Your task to perform on an android device: Empty the shopping cart on costco. Search for "logitech g pro" on costco, select the first entry, and add it to the cart. Image 0: 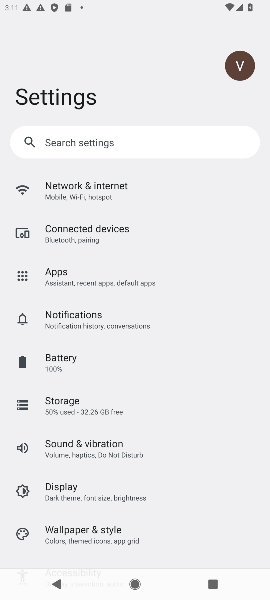
Step 0: press home button
Your task to perform on an android device: Empty the shopping cart on costco. Search for "logitech g pro" on costco, select the first entry, and add it to the cart. Image 1: 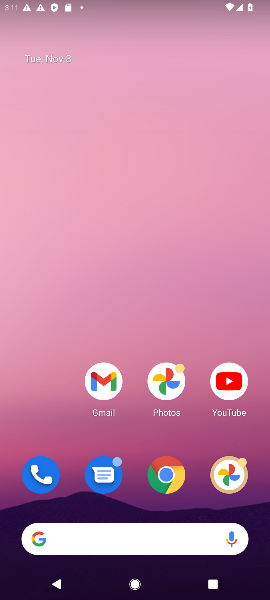
Step 1: drag from (132, 530) to (119, 187)
Your task to perform on an android device: Empty the shopping cart on costco. Search for "logitech g pro" on costco, select the first entry, and add it to the cart. Image 2: 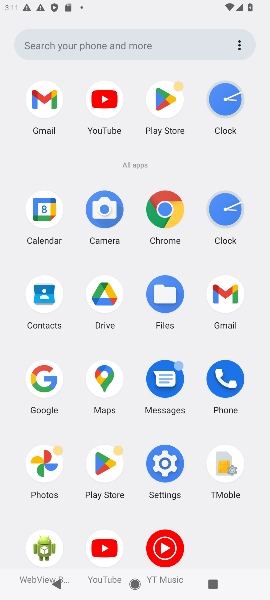
Step 2: click (47, 369)
Your task to perform on an android device: Empty the shopping cart on costco. Search for "logitech g pro" on costco, select the first entry, and add it to the cart. Image 3: 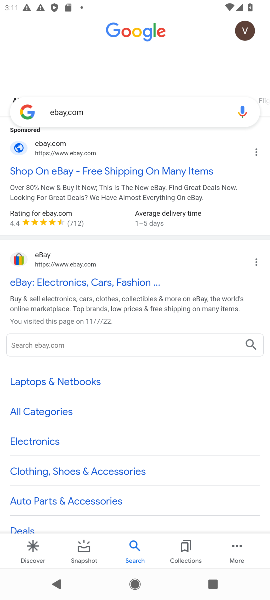
Step 3: click (94, 95)
Your task to perform on an android device: Empty the shopping cart on costco. Search for "logitech g pro" on costco, select the first entry, and add it to the cart. Image 4: 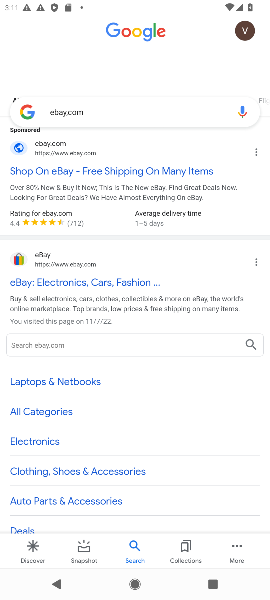
Step 4: click (85, 105)
Your task to perform on an android device: Empty the shopping cart on costco. Search for "logitech g pro" on costco, select the first entry, and add it to the cart. Image 5: 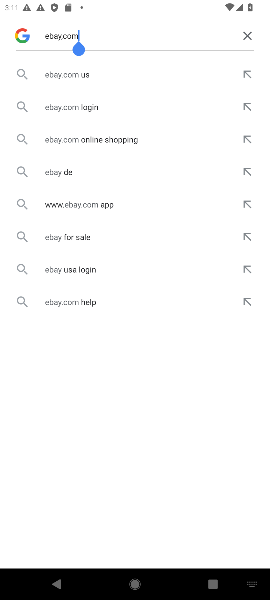
Step 5: click (246, 31)
Your task to perform on an android device: Empty the shopping cart on costco. Search for "logitech g pro" on costco, select the first entry, and add it to the cart. Image 6: 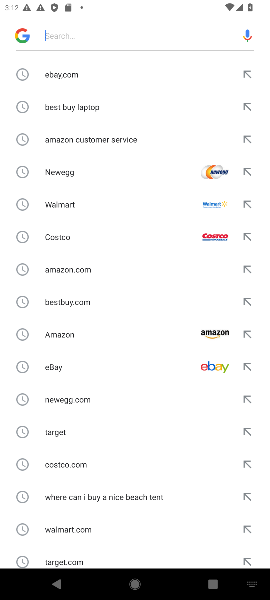
Step 6: click (78, 36)
Your task to perform on an android device: Empty the shopping cart on costco. Search for "logitech g pro" on costco, select the first entry, and add it to the cart. Image 7: 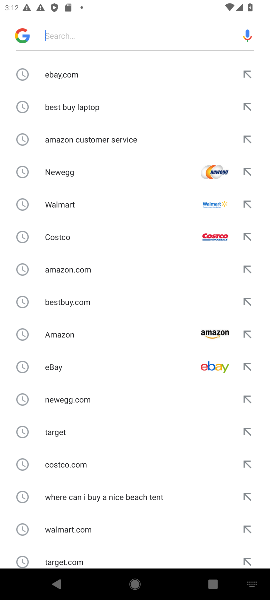
Step 7: click (81, 27)
Your task to perform on an android device: Empty the shopping cart on costco. Search for "logitech g pro" on costco, select the first entry, and add it to the cart. Image 8: 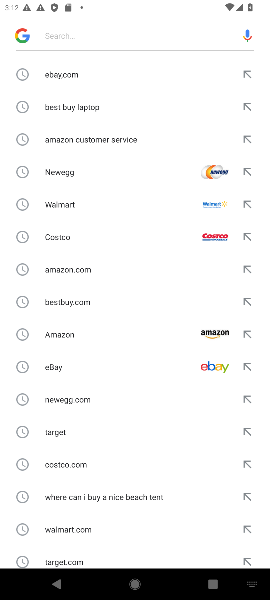
Step 8: type "costco "
Your task to perform on an android device: Empty the shopping cart on costco. Search for "logitech g pro" on costco, select the first entry, and add it to the cart. Image 9: 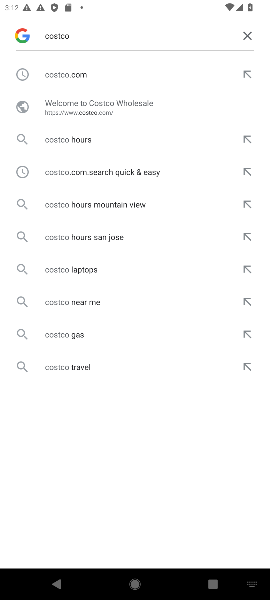
Step 9: click (75, 79)
Your task to perform on an android device: Empty the shopping cart on costco. Search for "logitech g pro" on costco, select the first entry, and add it to the cart. Image 10: 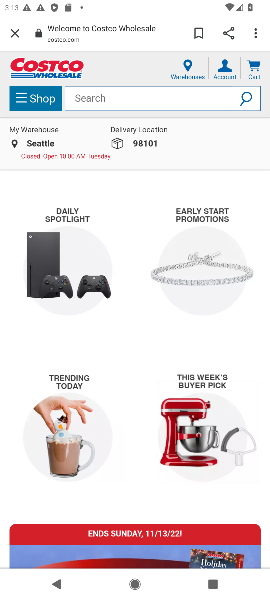
Step 10: click (159, 95)
Your task to perform on an android device: Empty the shopping cart on costco. Search for "logitech g pro" on costco, select the first entry, and add it to the cart. Image 11: 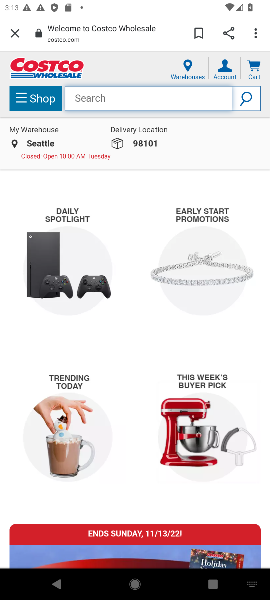
Step 11: type "logitech g pro "
Your task to perform on an android device: Empty the shopping cart on costco. Search for "logitech g pro" on costco, select the first entry, and add it to the cart. Image 12: 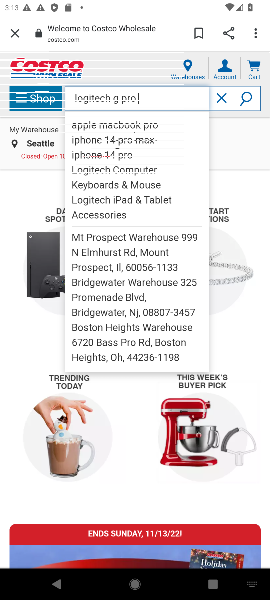
Step 12: click (245, 95)
Your task to perform on an android device: Empty the shopping cart on costco. Search for "logitech g pro" on costco, select the first entry, and add it to the cart. Image 13: 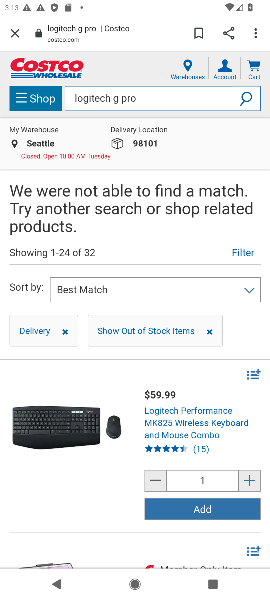
Step 13: click (184, 502)
Your task to perform on an android device: Empty the shopping cart on costco. Search for "logitech g pro" on costco, select the first entry, and add it to the cart. Image 14: 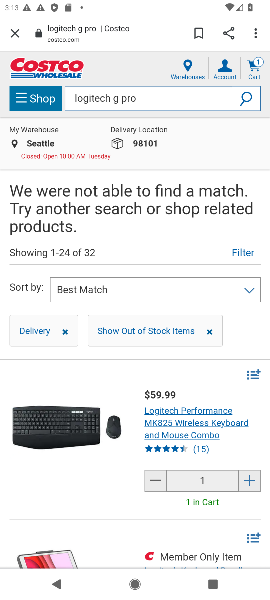
Step 14: task complete